Your task to perform on an android device: Go to battery settings Image 0: 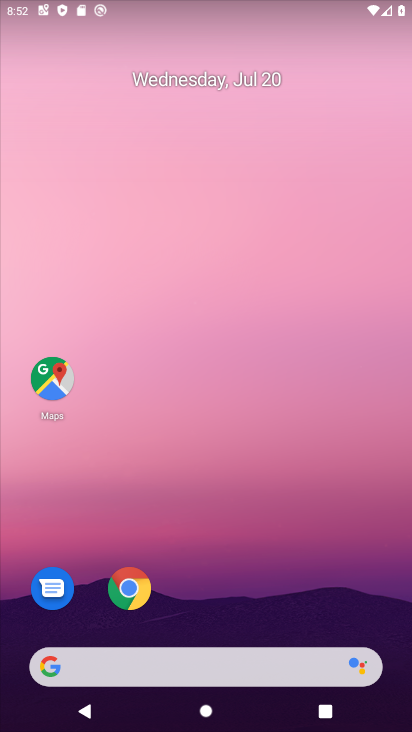
Step 0: drag from (222, 9) to (218, 494)
Your task to perform on an android device: Go to battery settings Image 1: 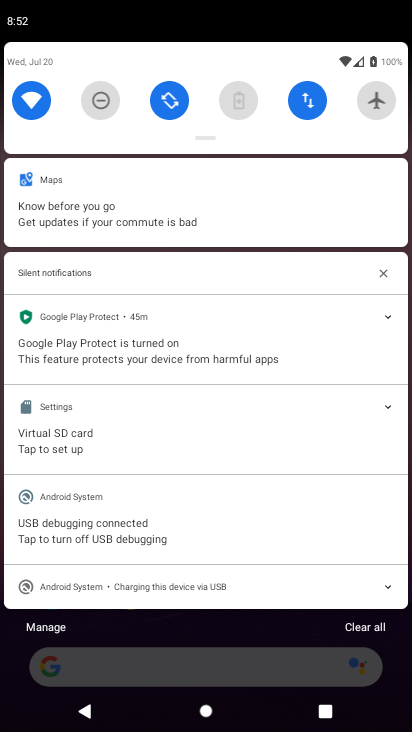
Step 1: click (237, 100)
Your task to perform on an android device: Go to battery settings Image 2: 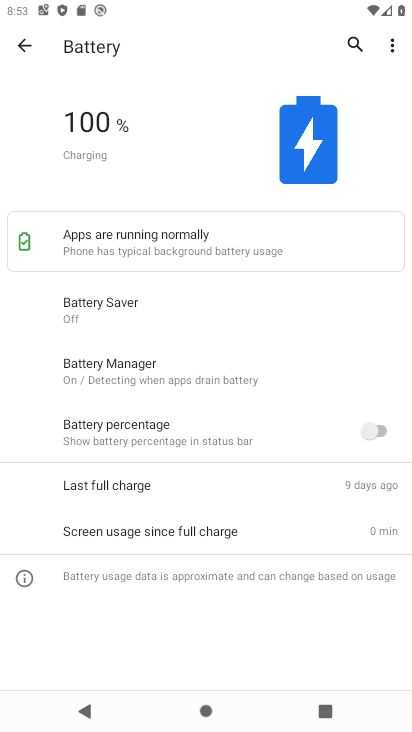
Step 2: task complete